Your task to perform on an android device: turn on airplane mode Image 0: 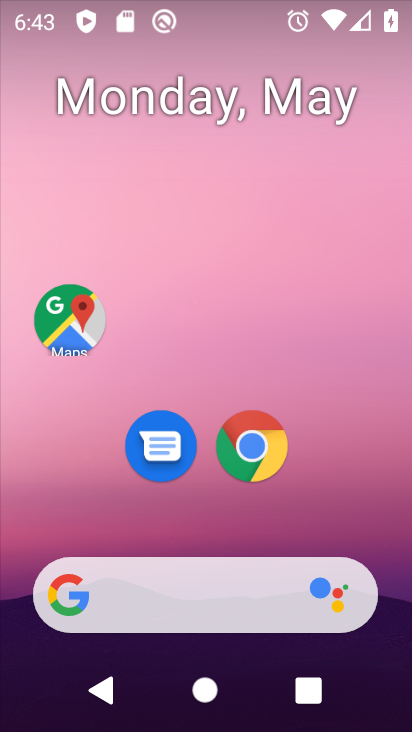
Step 0: drag from (308, 524) to (257, 154)
Your task to perform on an android device: turn on airplane mode Image 1: 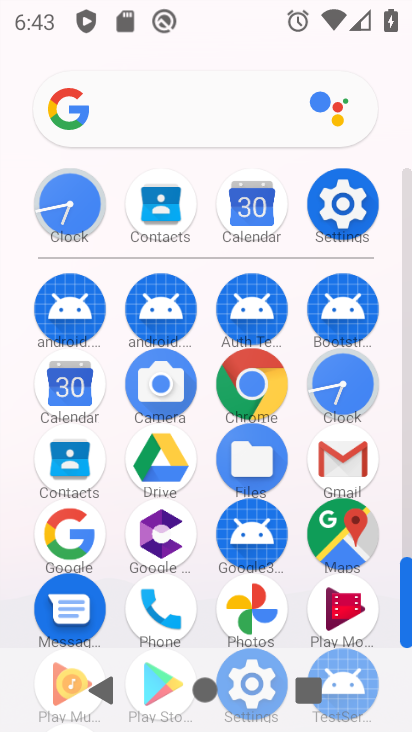
Step 1: click (335, 207)
Your task to perform on an android device: turn on airplane mode Image 2: 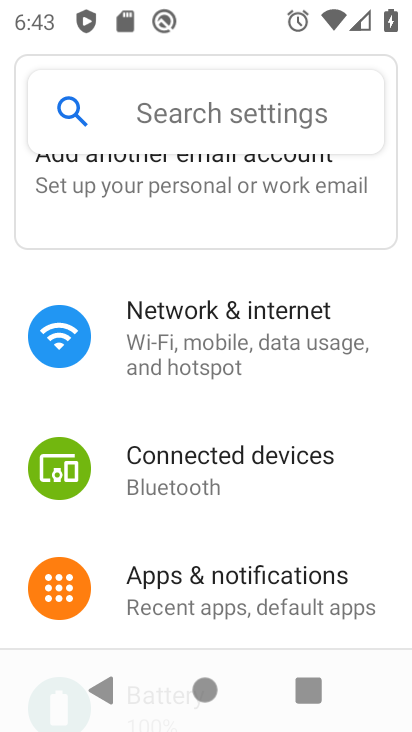
Step 2: click (206, 329)
Your task to perform on an android device: turn on airplane mode Image 3: 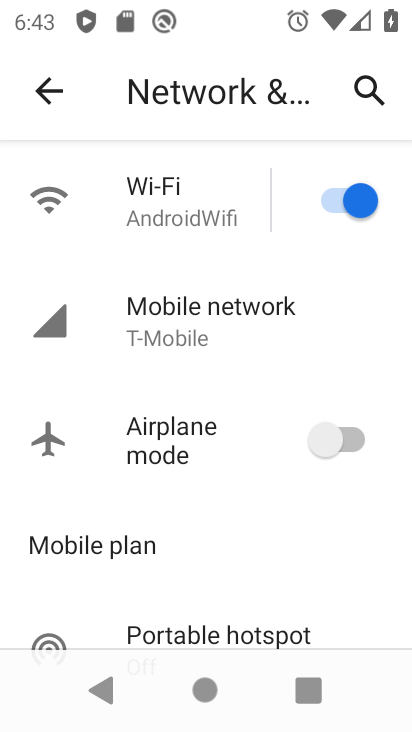
Step 3: click (310, 440)
Your task to perform on an android device: turn on airplane mode Image 4: 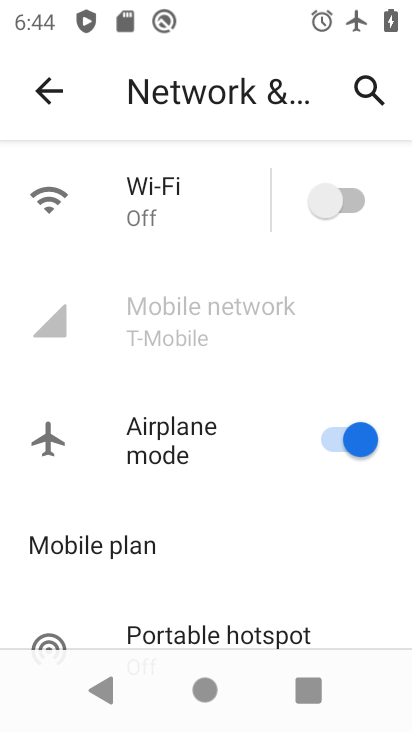
Step 4: task complete